Your task to perform on an android device: Open battery settings Image 0: 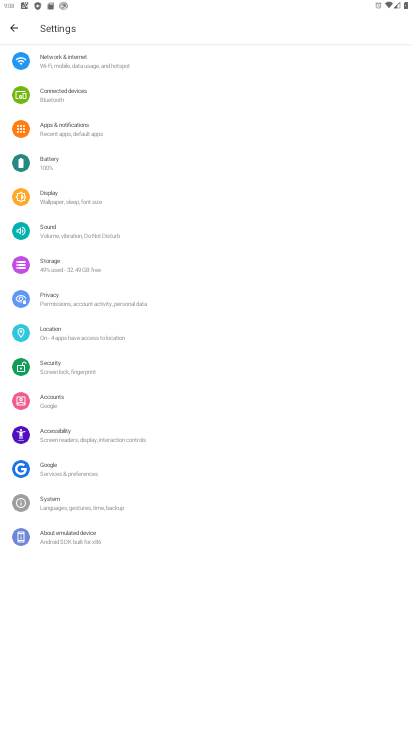
Step 0: click (49, 161)
Your task to perform on an android device: Open battery settings Image 1: 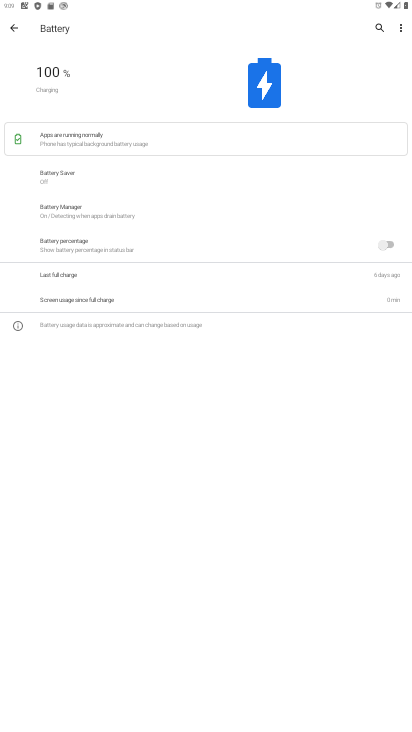
Step 1: task complete